Your task to perform on an android device: change timer sound Image 0: 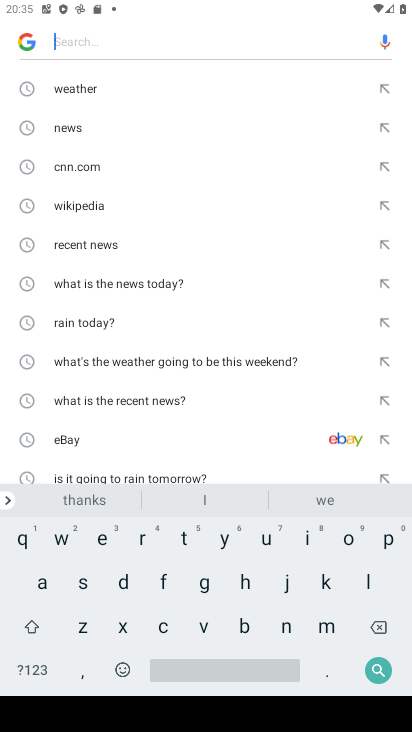
Step 0: press home button
Your task to perform on an android device: change timer sound Image 1: 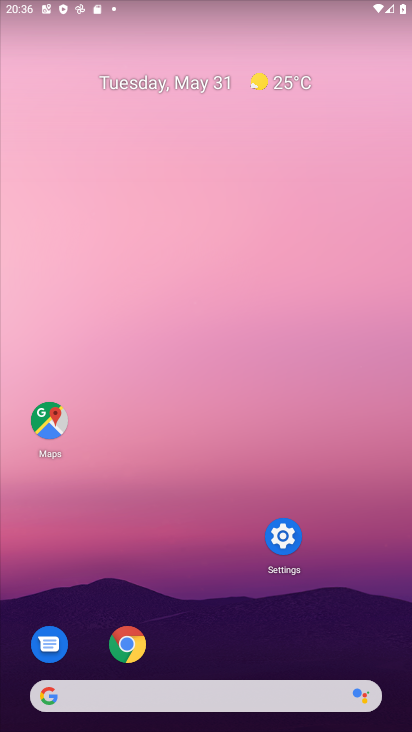
Step 1: drag from (213, 715) to (265, 322)
Your task to perform on an android device: change timer sound Image 2: 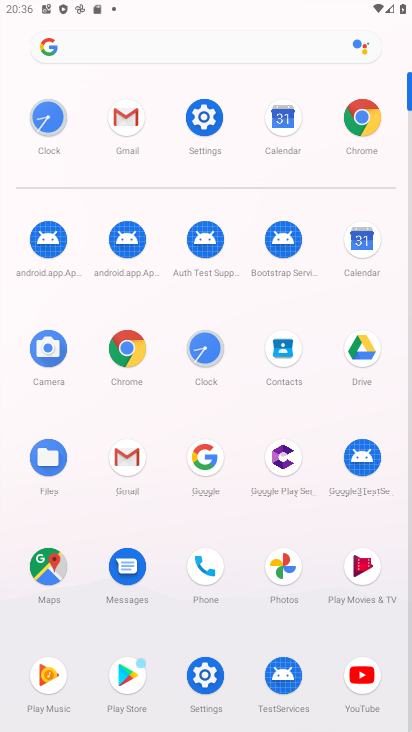
Step 2: click (210, 363)
Your task to perform on an android device: change timer sound Image 3: 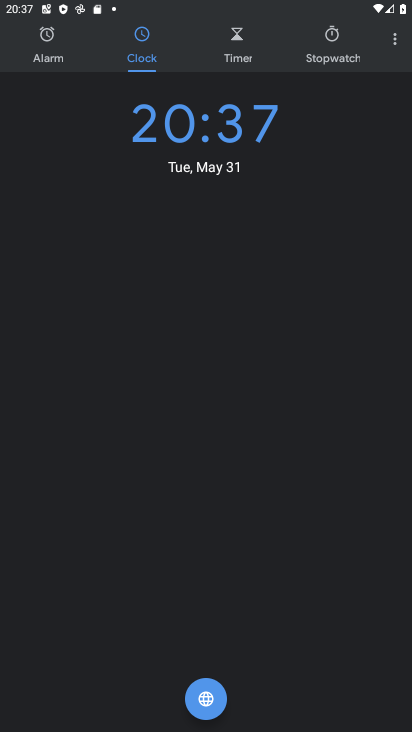
Step 3: click (399, 33)
Your task to perform on an android device: change timer sound Image 4: 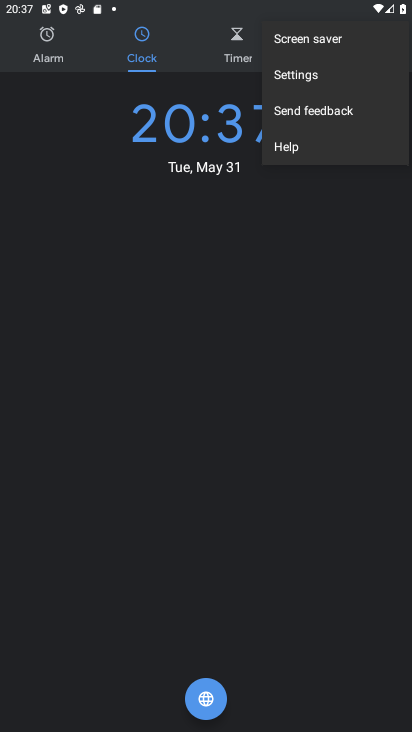
Step 4: click (336, 71)
Your task to perform on an android device: change timer sound Image 5: 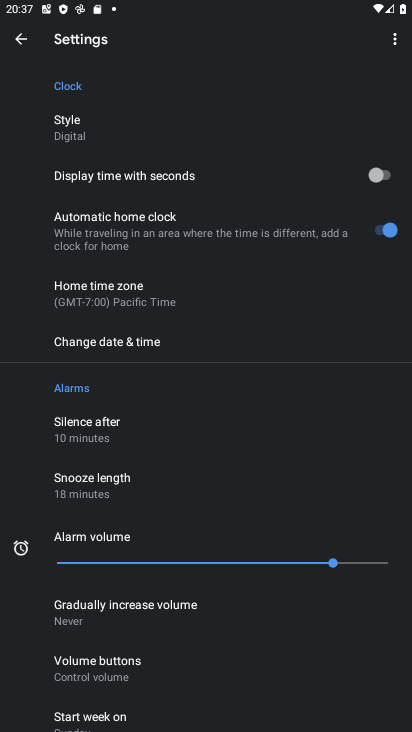
Step 5: drag from (193, 604) to (176, 406)
Your task to perform on an android device: change timer sound Image 6: 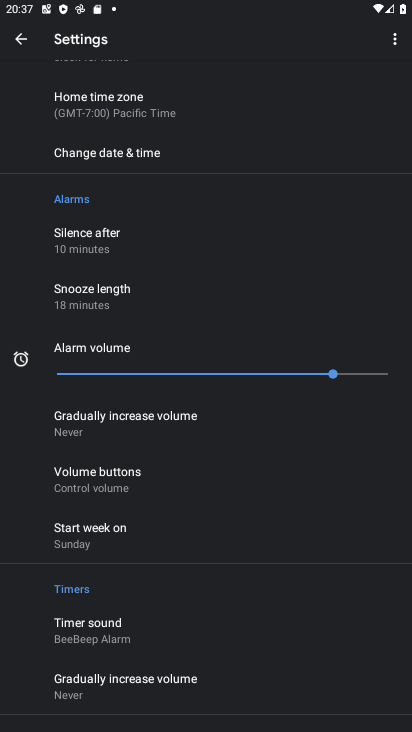
Step 6: click (105, 616)
Your task to perform on an android device: change timer sound Image 7: 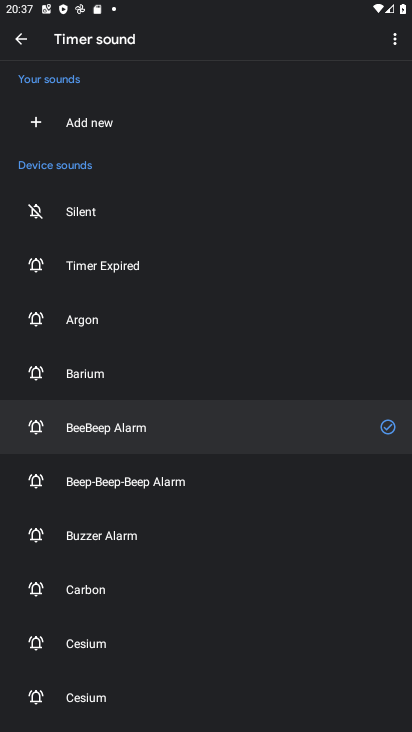
Step 7: click (107, 532)
Your task to perform on an android device: change timer sound Image 8: 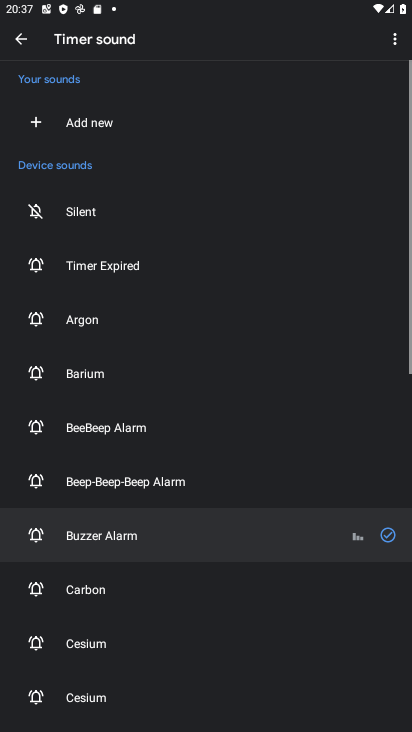
Step 8: task complete